Your task to perform on an android device: open a new tab in the chrome app Image 0: 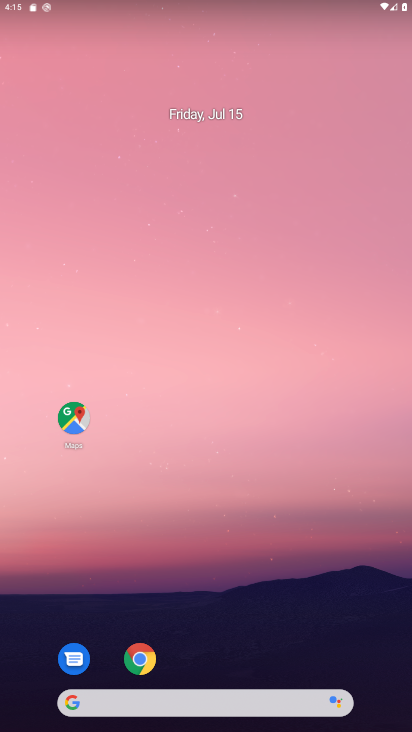
Step 0: drag from (287, 667) to (237, 5)
Your task to perform on an android device: open a new tab in the chrome app Image 1: 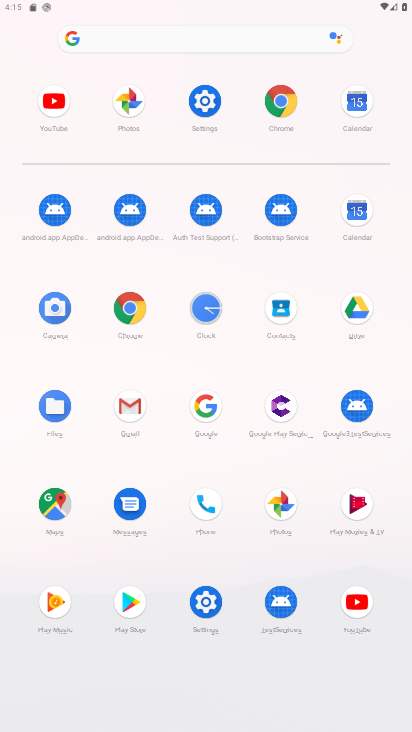
Step 1: click (126, 308)
Your task to perform on an android device: open a new tab in the chrome app Image 2: 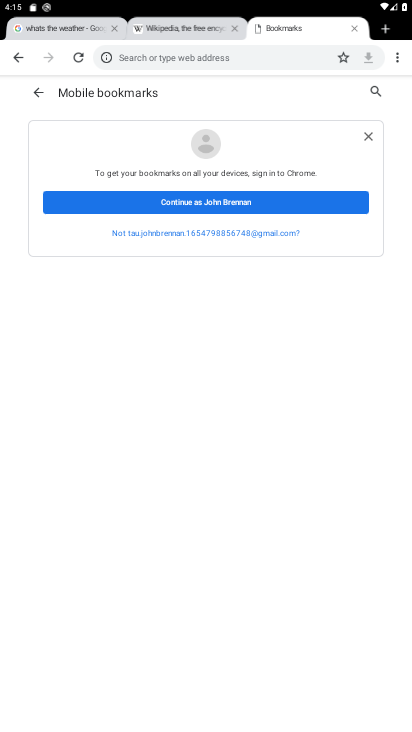
Step 2: click (396, 56)
Your task to perform on an android device: open a new tab in the chrome app Image 3: 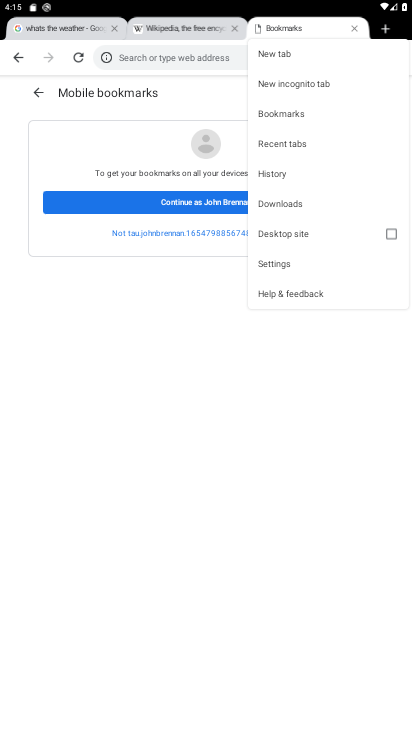
Step 3: click (302, 58)
Your task to perform on an android device: open a new tab in the chrome app Image 4: 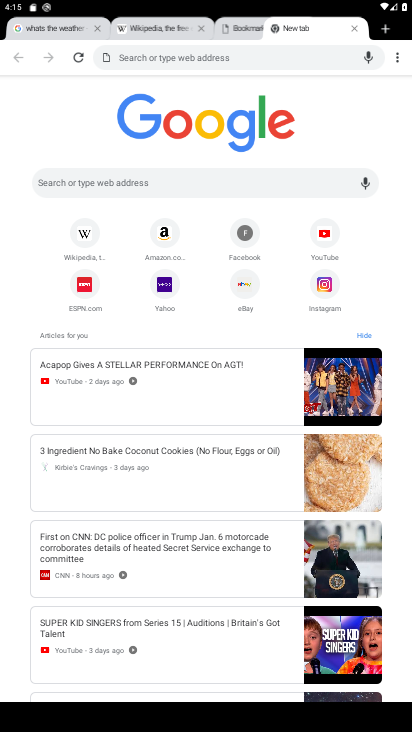
Step 4: task complete